Your task to perform on an android device: Set the phone to "Do not disturb". Image 0: 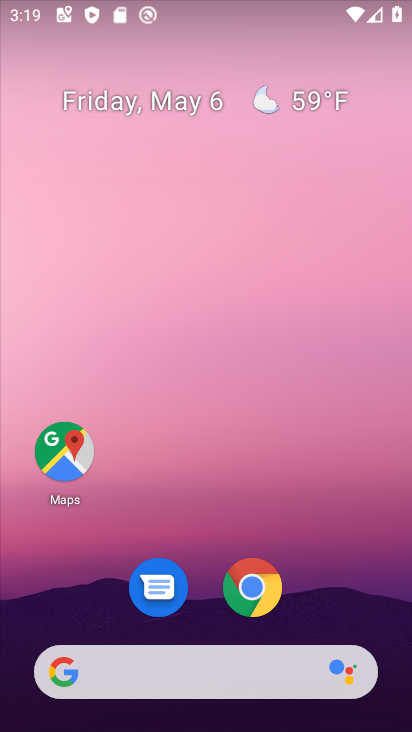
Step 0: drag from (313, 583) to (301, 34)
Your task to perform on an android device: Set the phone to "Do not disturb". Image 1: 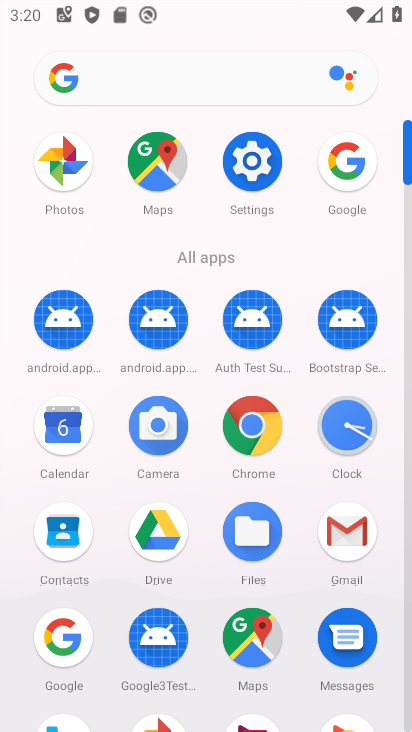
Step 1: click (259, 158)
Your task to perform on an android device: Set the phone to "Do not disturb". Image 2: 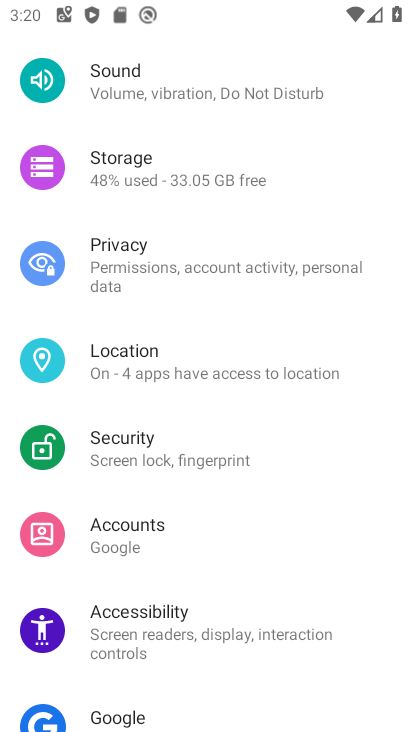
Step 2: drag from (165, 650) to (186, 241)
Your task to perform on an android device: Set the phone to "Do not disturb". Image 3: 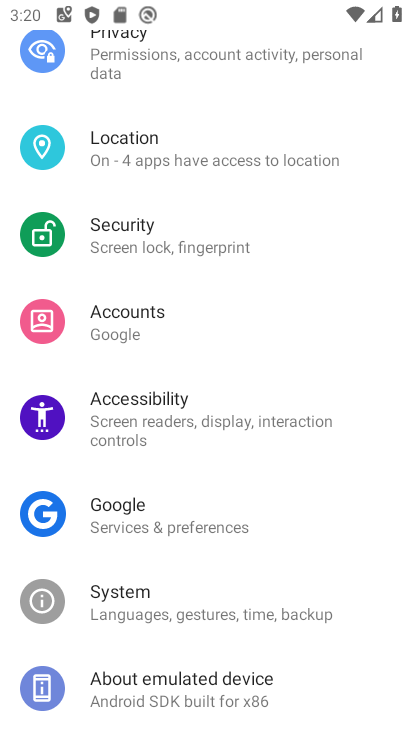
Step 3: drag from (176, 278) to (105, 613)
Your task to perform on an android device: Set the phone to "Do not disturb". Image 4: 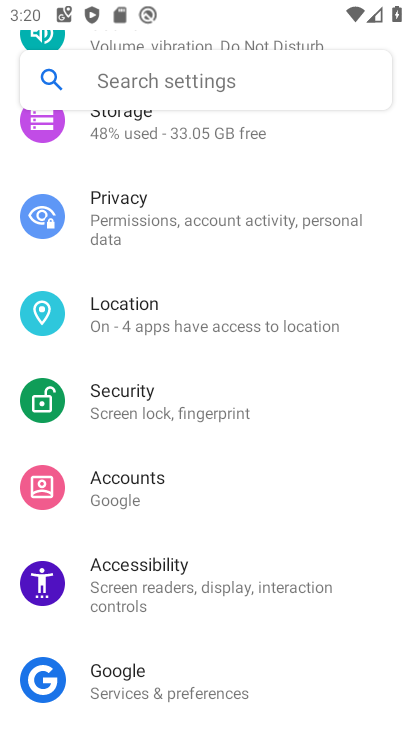
Step 4: drag from (125, 223) to (69, 689)
Your task to perform on an android device: Set the phone to "Do not disturb". Image 5: 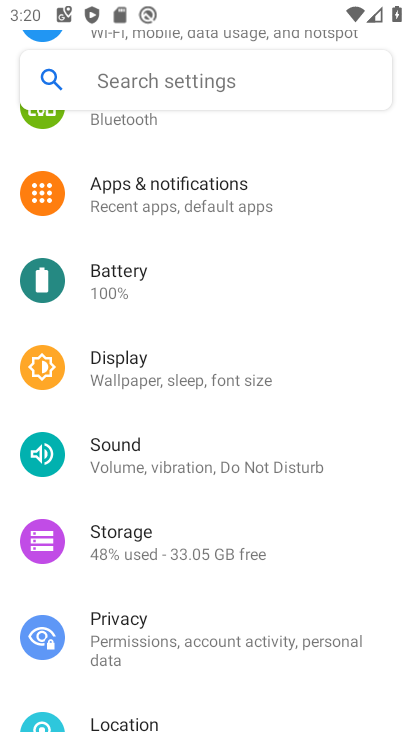
Step 5: click (126, 433)
Your task to perform on an android device: Set the phone to "Do not disturb". Image 6: 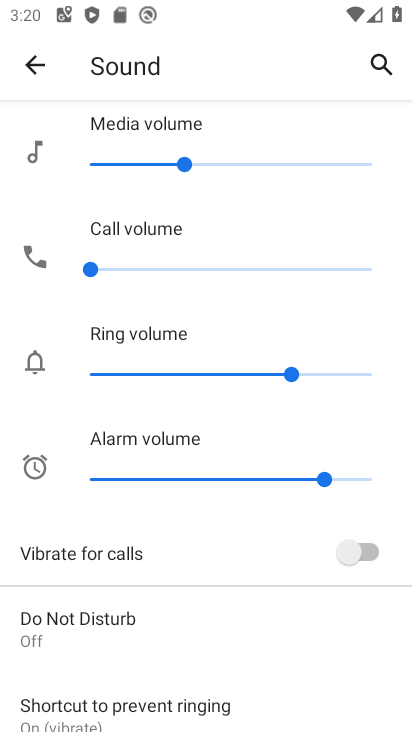
Step 6: drag from (121, 599) to (145, 140)
Your task to perform on an android device: Set the phone to "Do not disturb". Image 7: 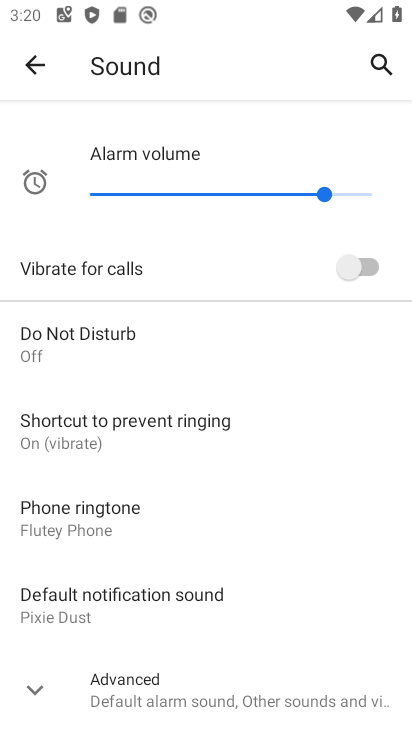
Step 7: drag from (114, 598) to (130, 159)
Your task to perform on an android device: Set the phone to "Do not disturb". Image 8: 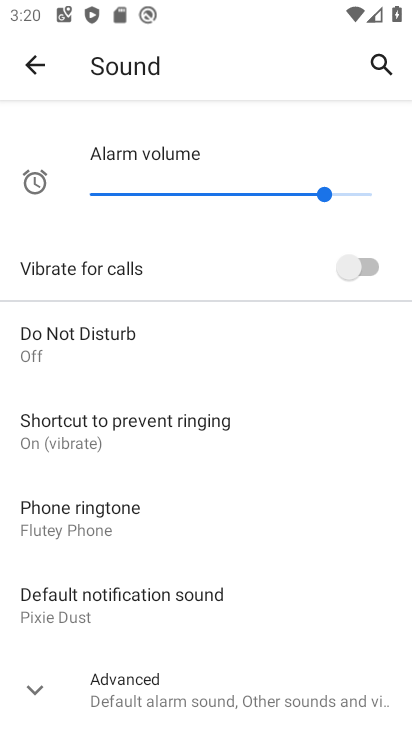
Step 8: click (187, 682)
Your task to perform on an android device: Set the phone to "Do not disturb". Image 9: 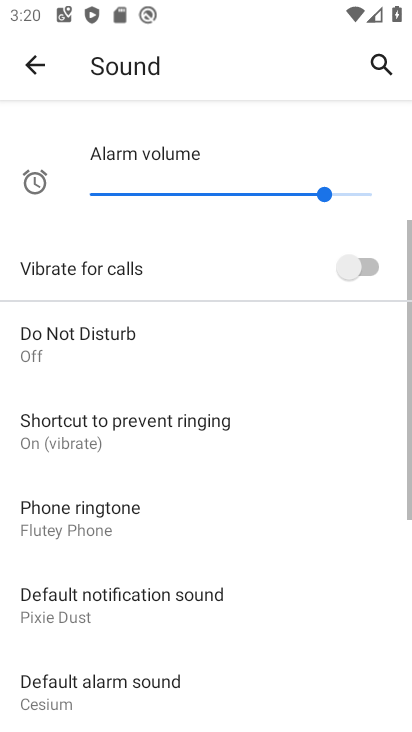
Step 9: drag from (187, 682) to (197, 330)
Your task to perform on an android device: Set the phone to "Do not disturb". Image 10: 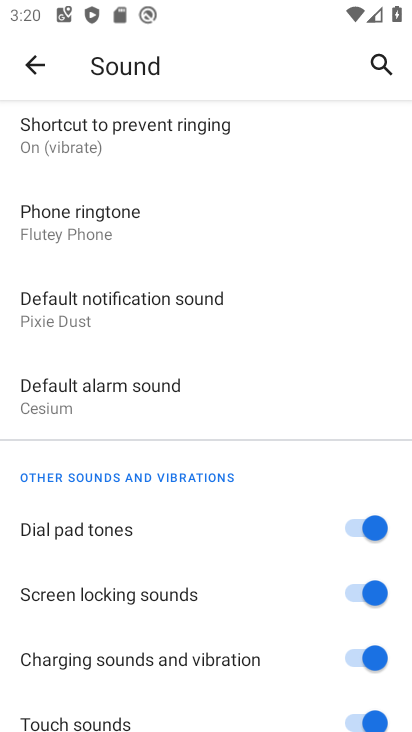
Step 10: drag from (163, 646) to (180, 258)
Your task to perform on an android device: Set the phone to "Do not disturb". Image 11: 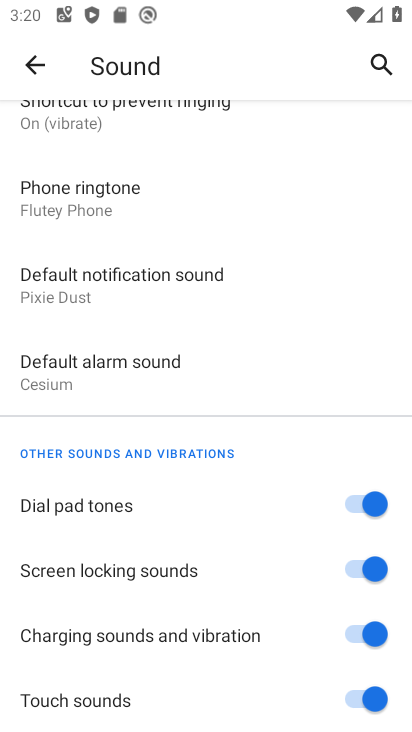
Step 11: drag from (181, 258) to (159, 560)
Your task to perform on an android device: Set the phone to "Do not disturb". Image 12: 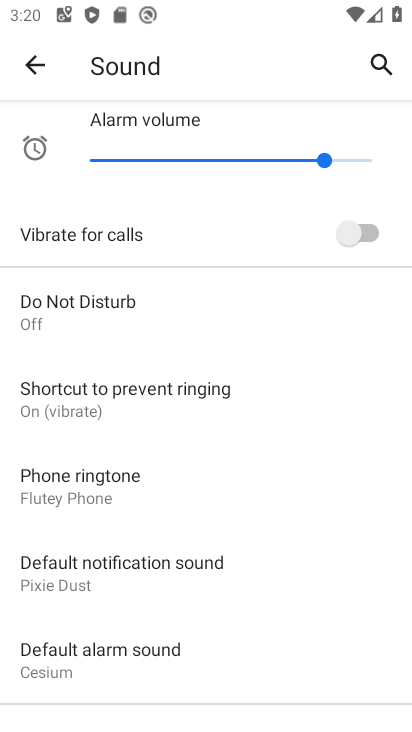
Step 12: drag from (215, 275) to (176, 620)
Your task to perform on an android device: Set the phone to "Do not disturb". Image 13: 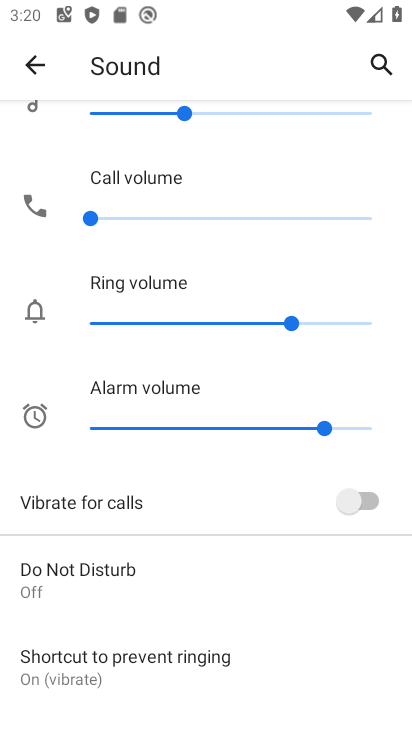
Step 13: drag from (227, 179) to (178, 619)
Your task to perform on an android device: Set the phone to "Do not disturb". Image 14: 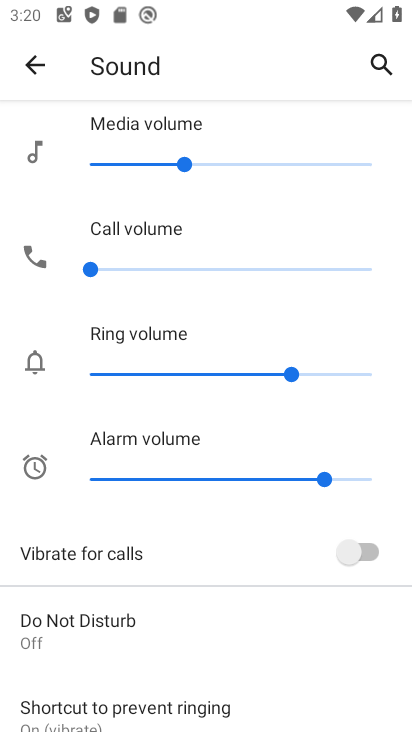
Step 14: drag from (239, 191) to (210, 595)
Your task to perform on an android device: Set the phone to "Do not disturb". Image 15: 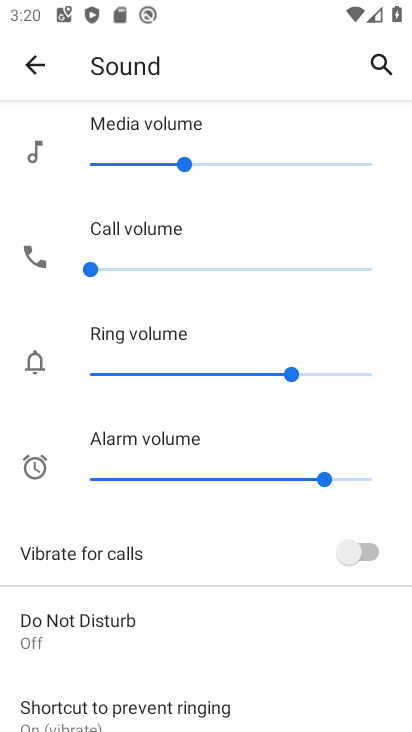
Step 15: click (109, 634)
Your task to perform on an android device: Set the phone to "Do not disturb". Image 16: 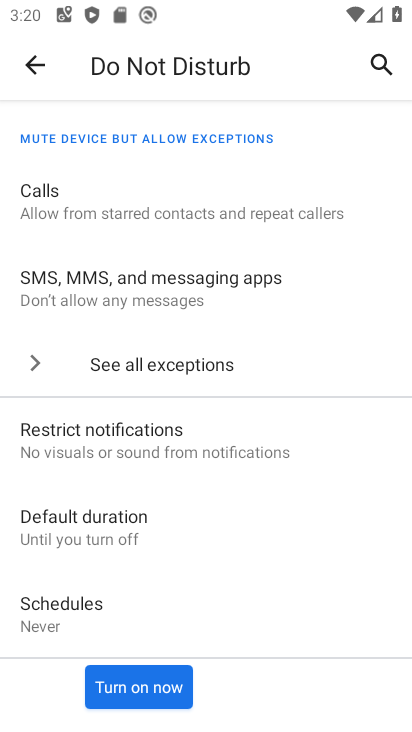
Step 16: click (120, 691)
Your task to perform on an android device: Set the phone to "Do not disturb". Image 17: 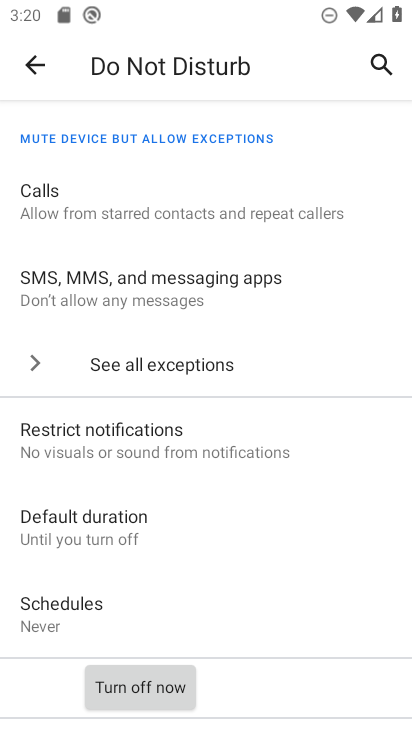
Step 17: task complete